Your task to perform on an android device: toggle improve location accuracy Image 0: 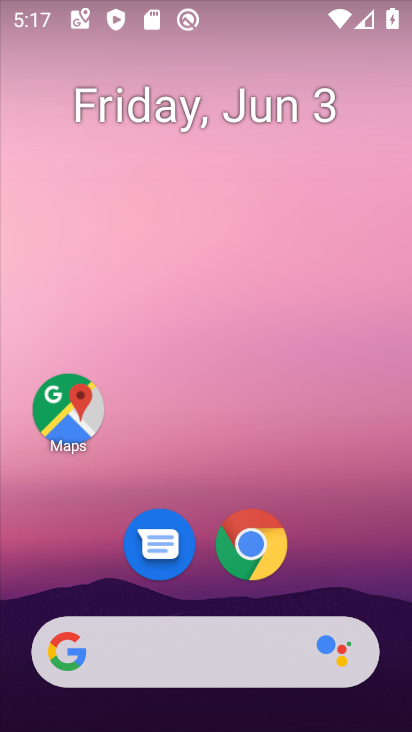
Step 0: drag from (331, 541) to (382, 82)
Your task to perform on an android device: toggle improve location accuracy Image 1: 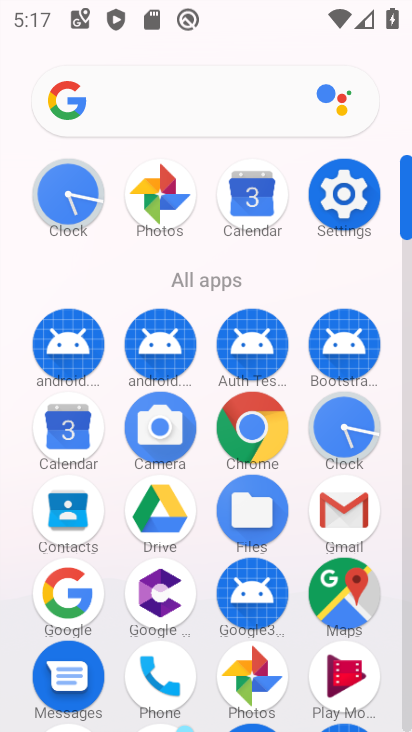
Step 1: click (347, 200)
Your task to perform on an android device: toggle improve location accuracy Image 2: 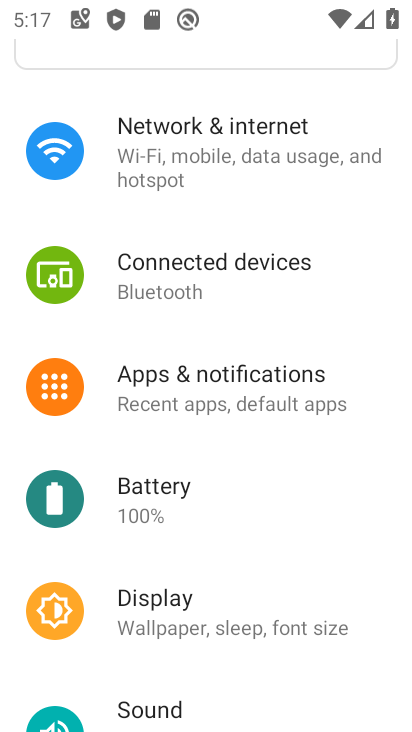
Step 2: drag from (256, 667) to (315, 250)
Your task to perform on an android device: toggle improve location accuracy Image 3: 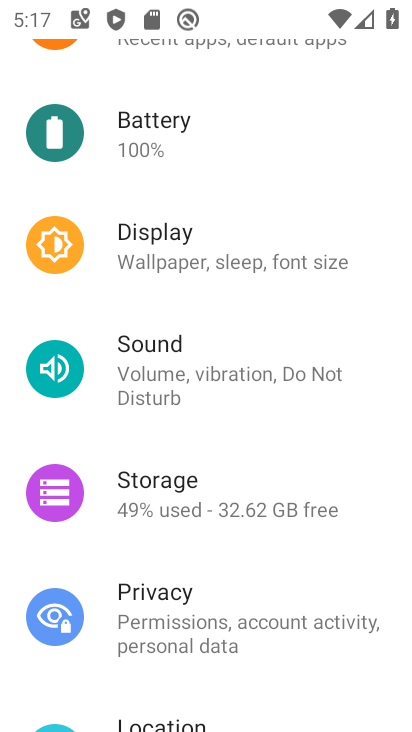
Step 3: drag from (262, 671) to (320, 243)
Your task to perform on an android device: toggle improve location accuracy Image 4: 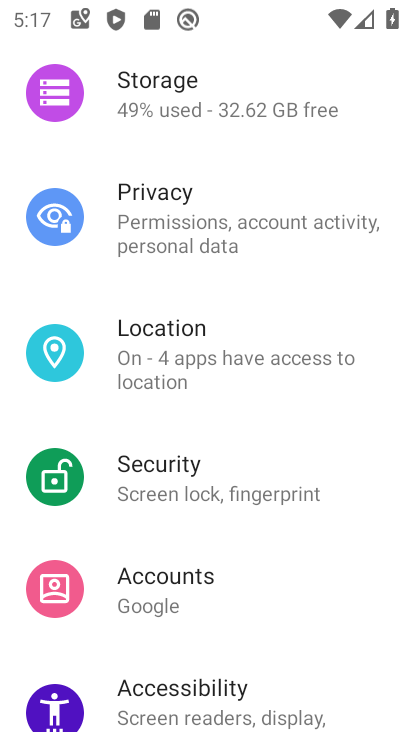
Step 4: click (162, 341)
Your task to perform on an android device: toggle improve location accuracy Image 5: 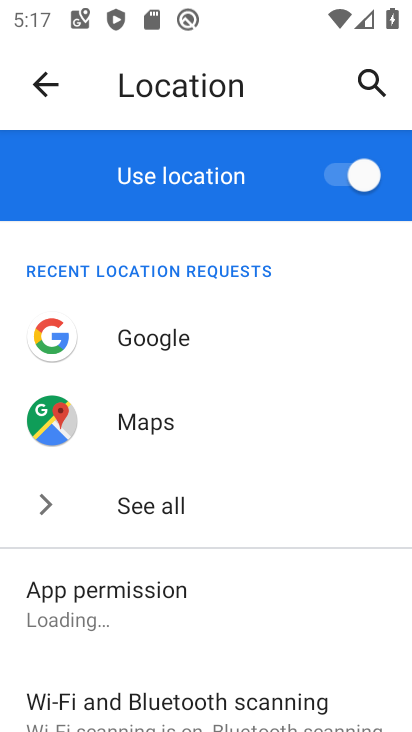
Step 5: drag from (278, 618) to (294, 278)
Your task to perform on an android device: toggle improve location accuracy Image 6: 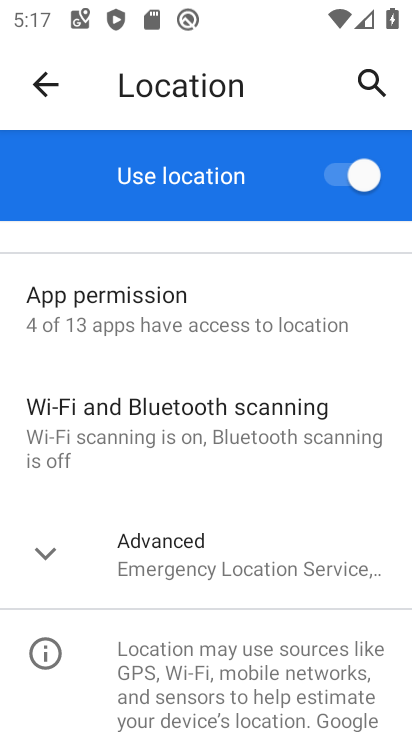
Step 6: click (269, 571)
Your task to perform on an android device: toggle improve location accuracy Image 7: 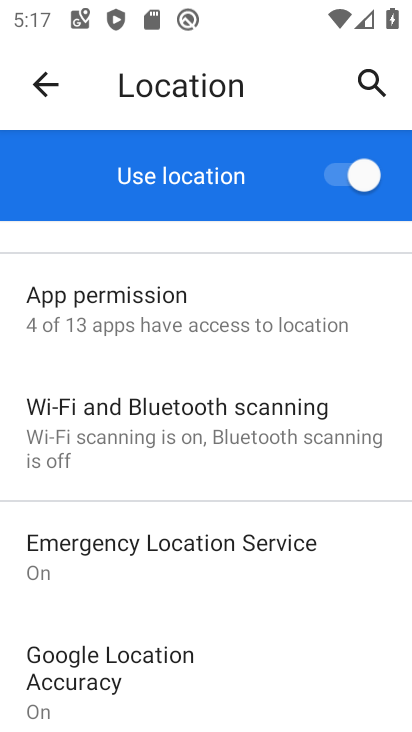
Step 7: click (177, 675)
Your task to perform on an android device: toggle improve location accuracy Image 8: 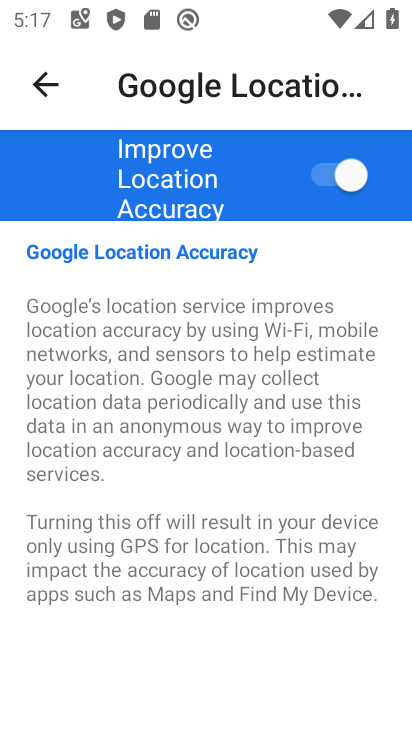
Step 8: click (337, 174)
Your task to perform on an android device: toggle improve location accuracy Image 9: 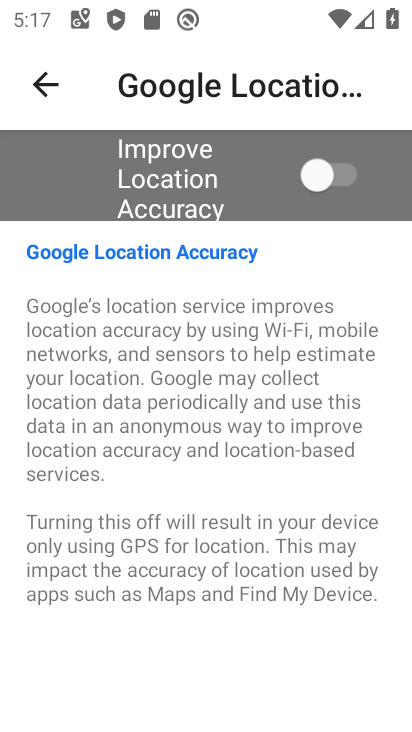
Step 9: task complete